Your task to perform on an android device: toggle airplane mode Image 0: 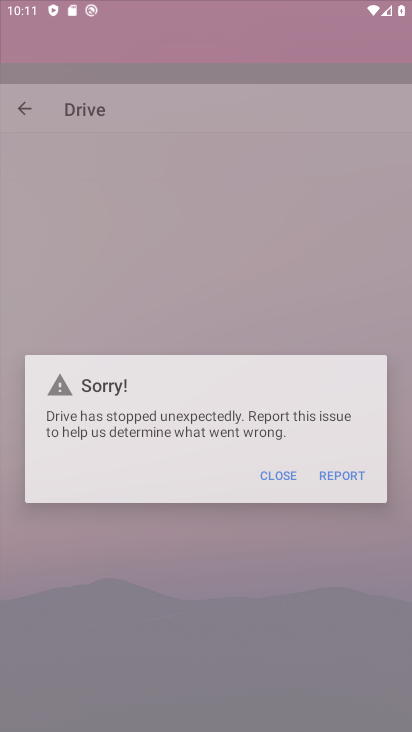
Step 0: drag from (336, 542) to (322, 213)
Your task to perform on an android device: toggle airplane mode Image 1: 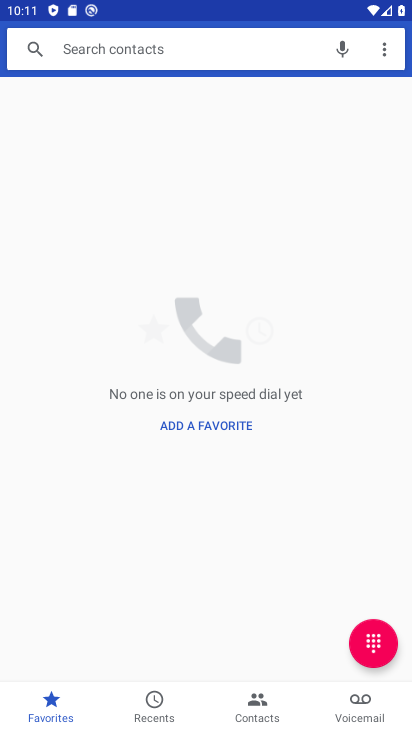
Step 1: press home button
Your task to perform on an android device: toggle airplane mode Image 2: 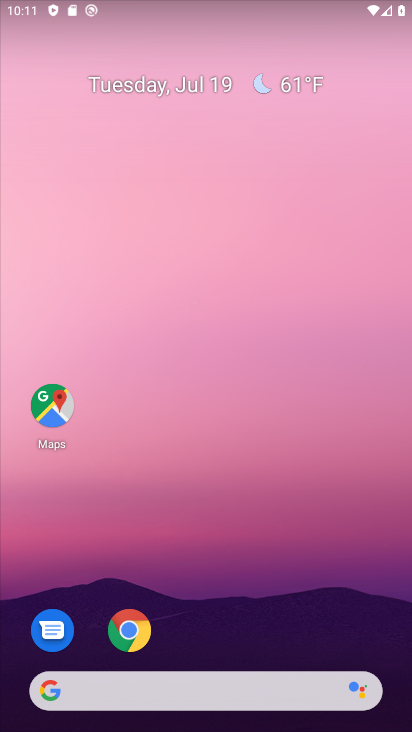
Step 2: drag from (378, 641) to (357, 220)
Your task to perform on an android device: toggle airplane mode Image 3: 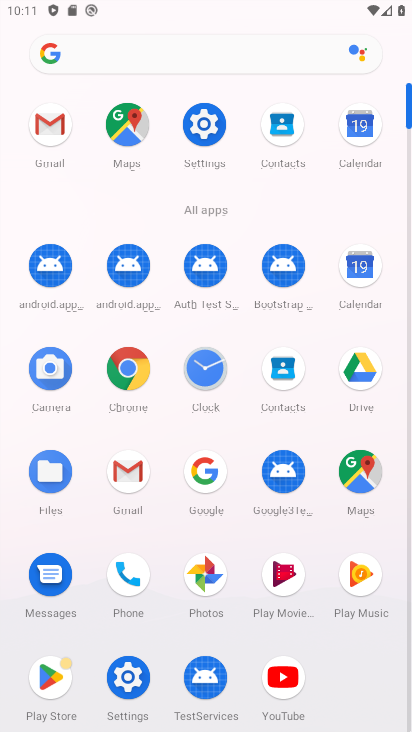
Step 3: click (127, 677)
Your task to perform on an android device: toggle airplane mode Image 4: 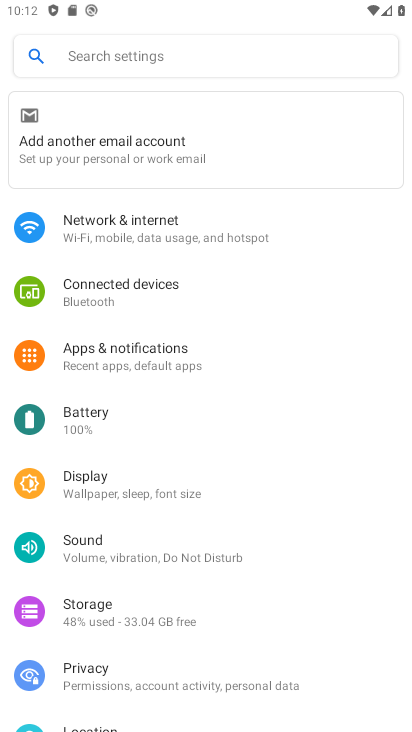
Step 4: click (111, 221)
Your task to perform on an android device: toggle airplane mode Image 5: 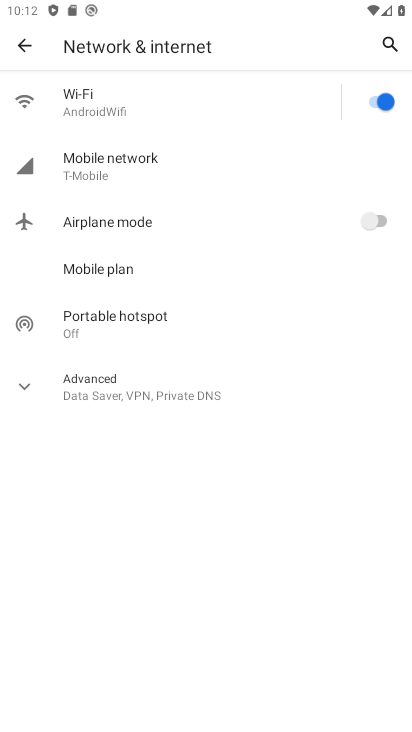
Step 5: click (385, 221)
Your task to perform on an android device: toggle airplane mode Image 6: 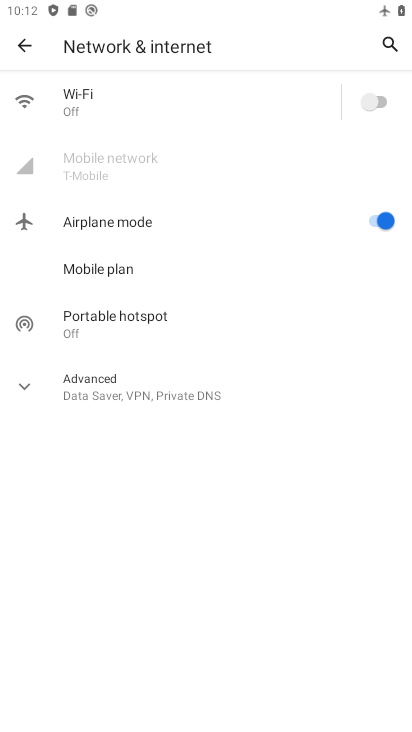
Step 6: task complete